Your task to perform on an android device: Open notification settings Image 0: 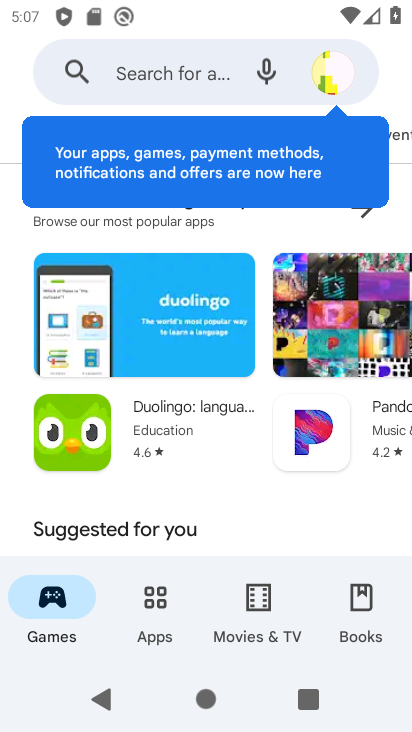
Step 0: press home button
Your task to perform on an android device: Open notification settings Image 1: 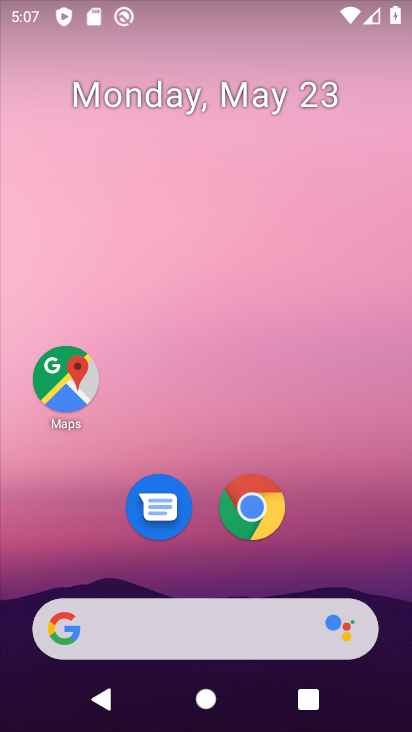
Step 1: drag from (209, 479) to (228, 10)
Your task to perform on an android device: Open notification settings Image 2: 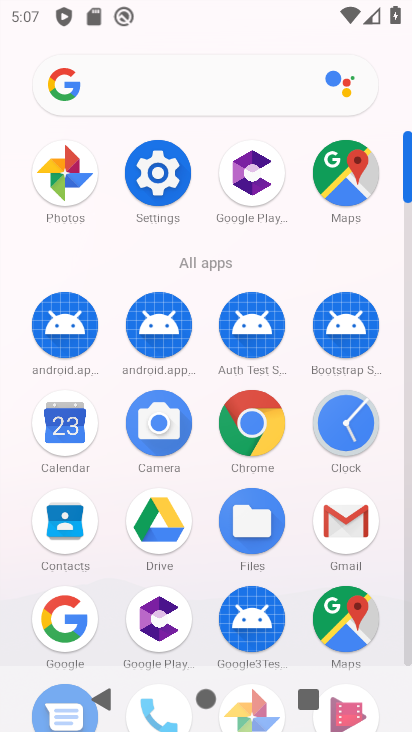
Step 2: click (147, 159)
Your task to perform on an android device: Open notification settings Image 3: 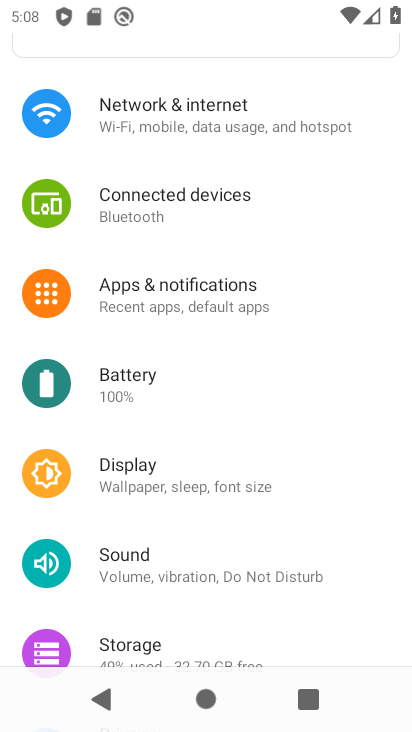
Step 3: click (200, 299)
Your task to perform on an android device: Open notification settings Image 4: 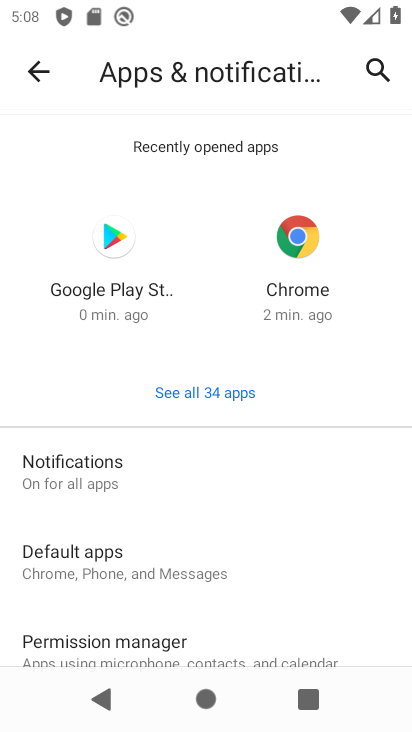
Step 4: click (98, 467)
Your task to perform on an android device: Open notification settings Image 5: 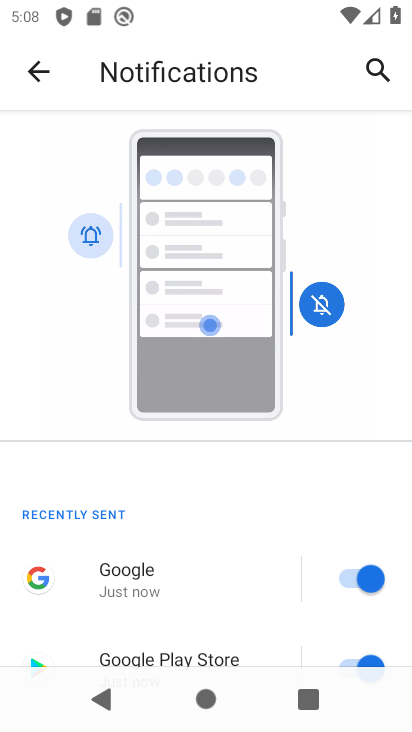
Step 5: task complete